Your task to perform on an android device: turn off location history Image 0: 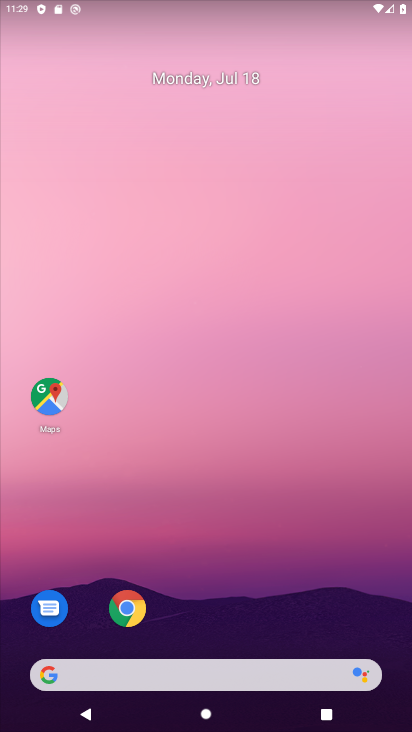
Step 0: drag from (170, 445) to (167, 144)
Your task to perform on an android device: turn off location history Image 1: 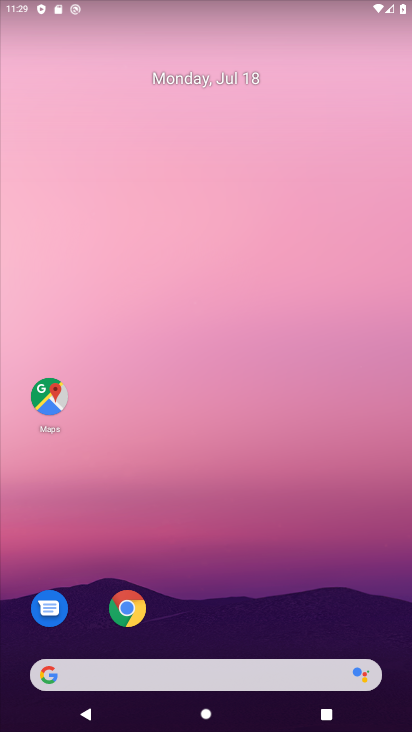
Step 1: drag from (191, 672) to (211, 74)
Your task to perform on an android device: turn off location history Image 2: 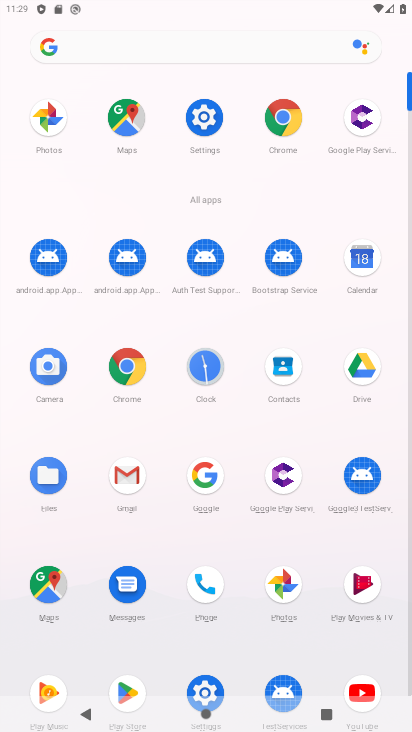
Step 2: click (205, 114)
Your task to perform on an android device: turn off location history Image 3: 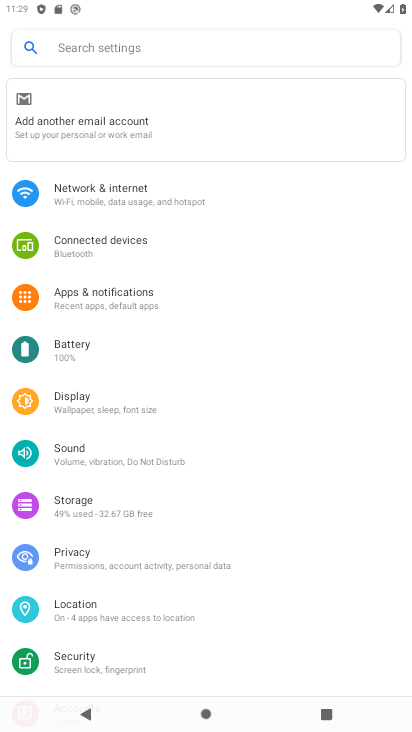
Step 3: click (124, 618)
Your task to perform on an android device: turn off location history Image 4: 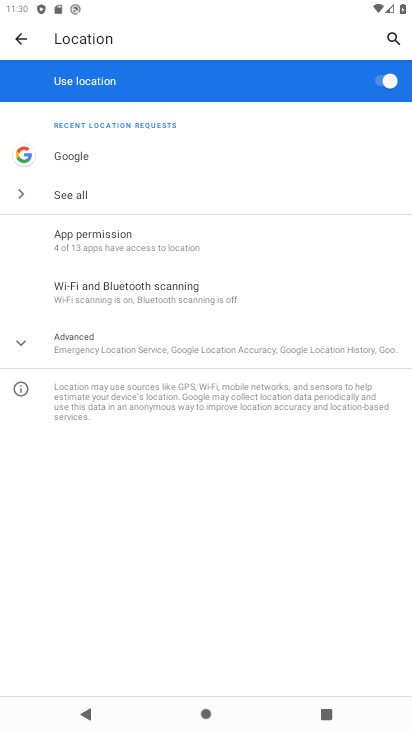
Step 4: click (187, 351)
Your task to perform on an android device: turn off location history Image 5: 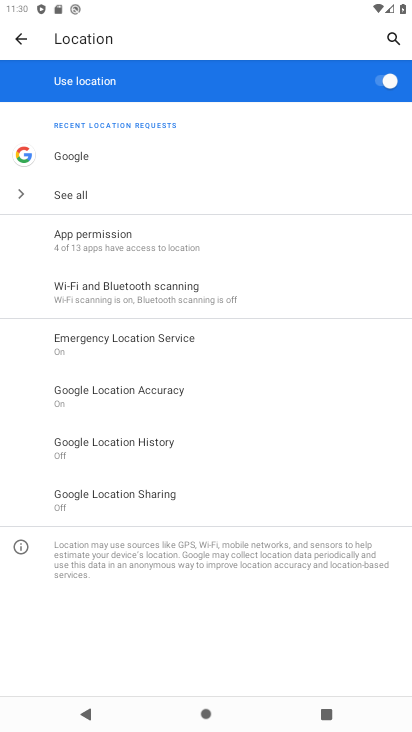
Step 5: task complete